Your task to perform on an android device: turn pop-ups on in chrome Image 0: 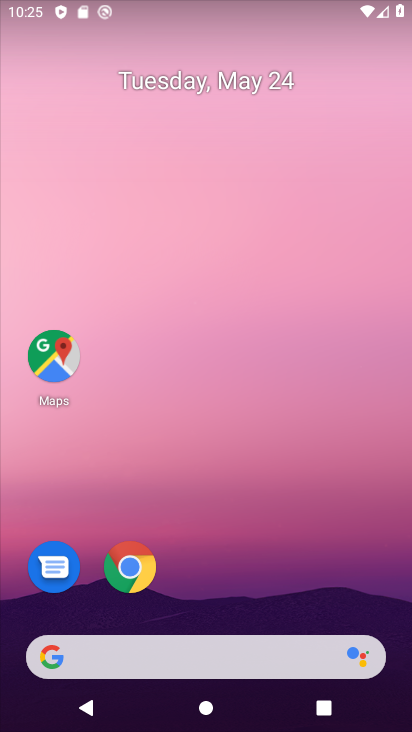
Step 0: press home button
Your task to perform on an android device: turn pop-ups on in chrome Image 1: 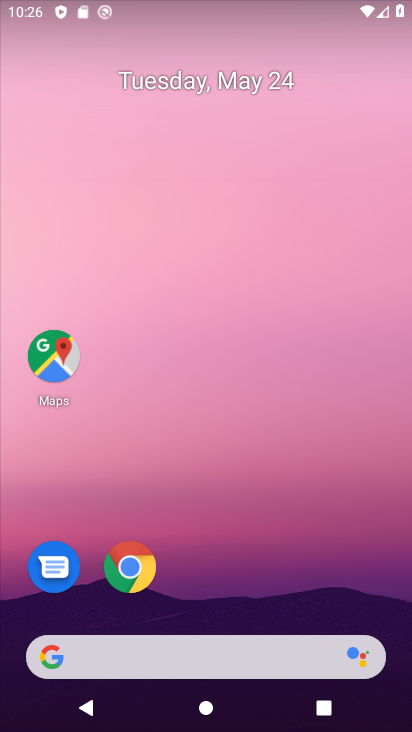
Step 1: drag from (285, 684) to (164, 19)
Your task to perform on an android device: turn pop-ups on in chrome Image 2: 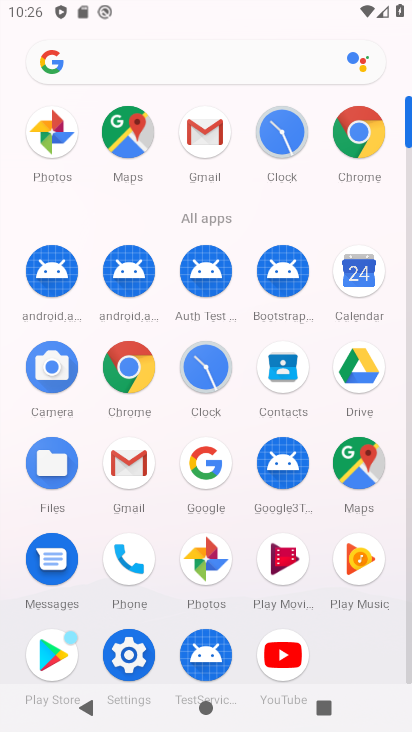
Step 2: click (344, 136)
Your task to perform on an android device: turn pop-ups on in chrome Image 3: 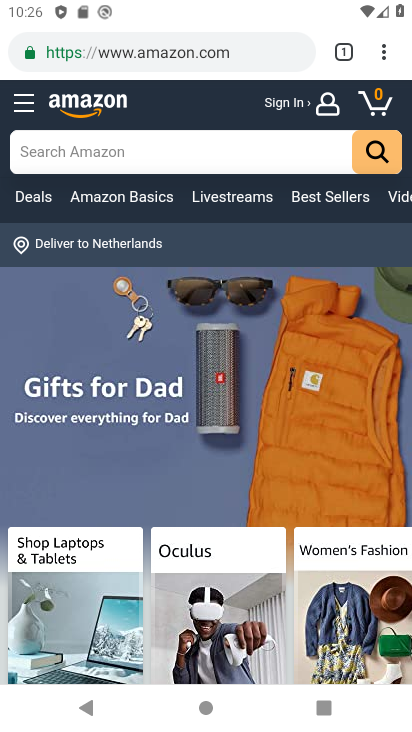
Step 3: click (380, 54)
Your task to perform on an android device: turn pop-ups on in chrome Image 4: 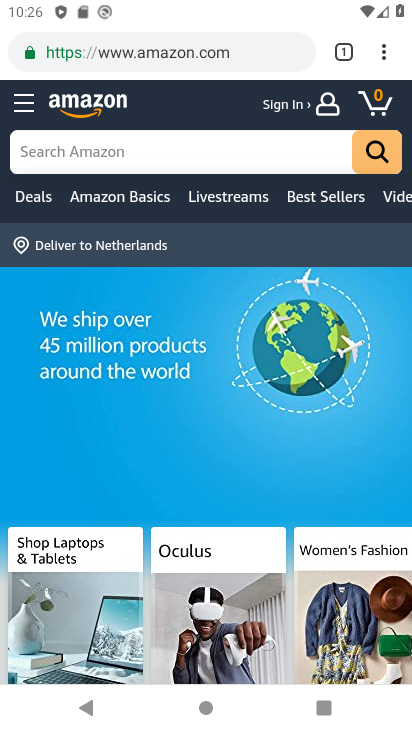
Step 4: click (383, 53)
Your task to perform on an android device: turn pop-ups on in chrome Image 5: 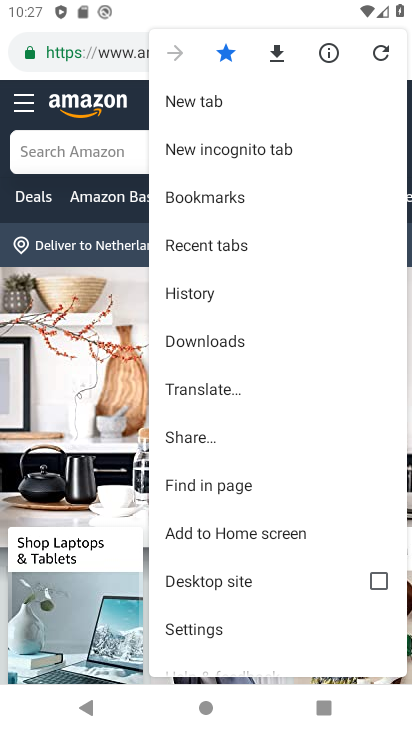
Step 5: click (207, 628)
Your task to perform on an android device: turn pop-ups on in chrome Image 6: 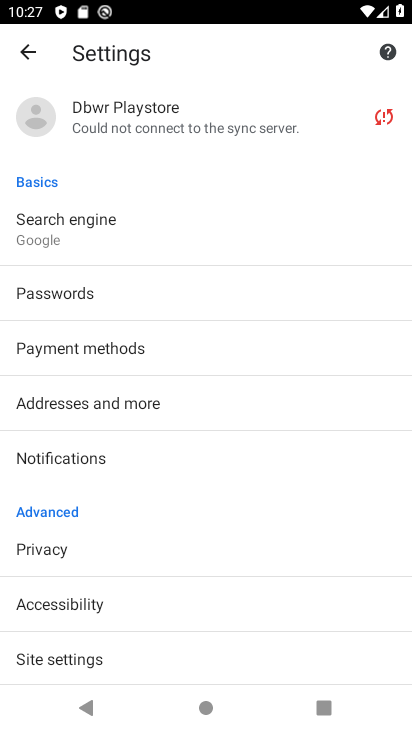
Step 6: click (86, 657)
Your task to perform on an android device: turn pop-ups on in chrome Image 7: 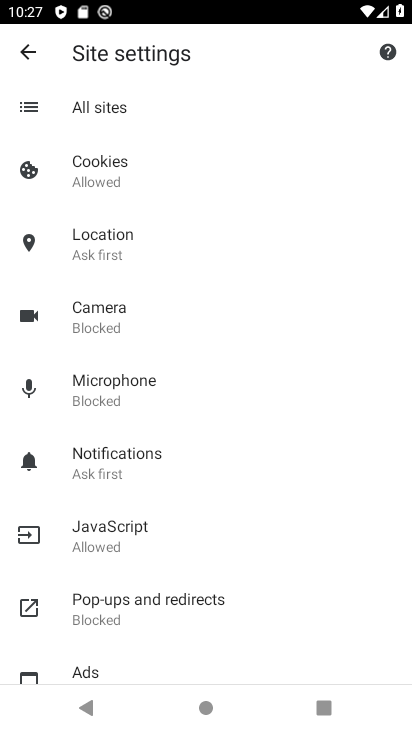
Step 7: click (132, 606)
Your task to perform on an android device: turn pop-ups on in chrome Image 8: 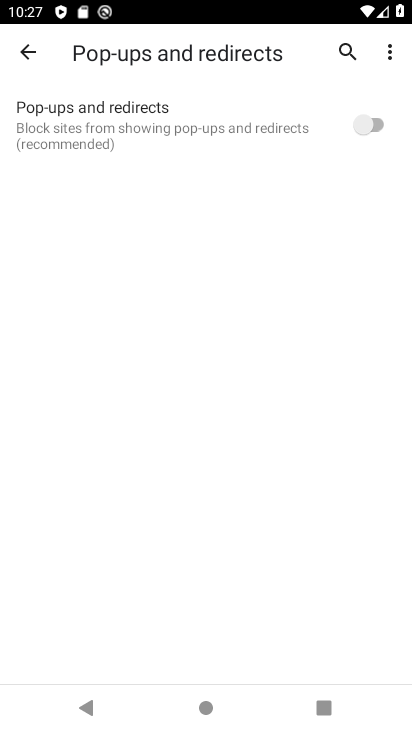
Step 8: click (358, 122)
Your task to perform on an android device: turn pop-ups on in chrome Image 9: 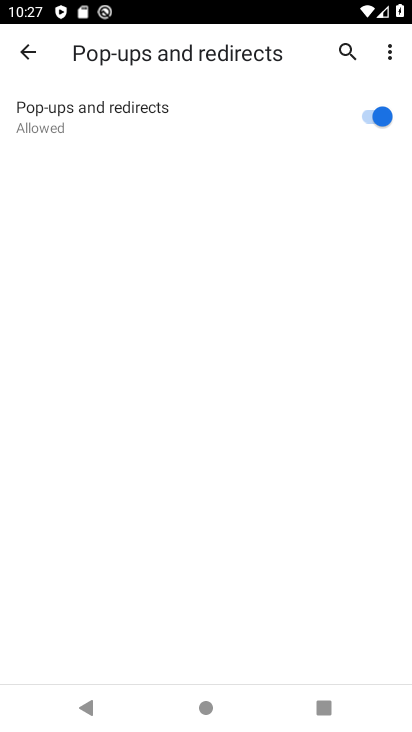
Step 9: task complete